Your task to perform on an android device: Open Google Chrome and open the bookmarks view Image 0: 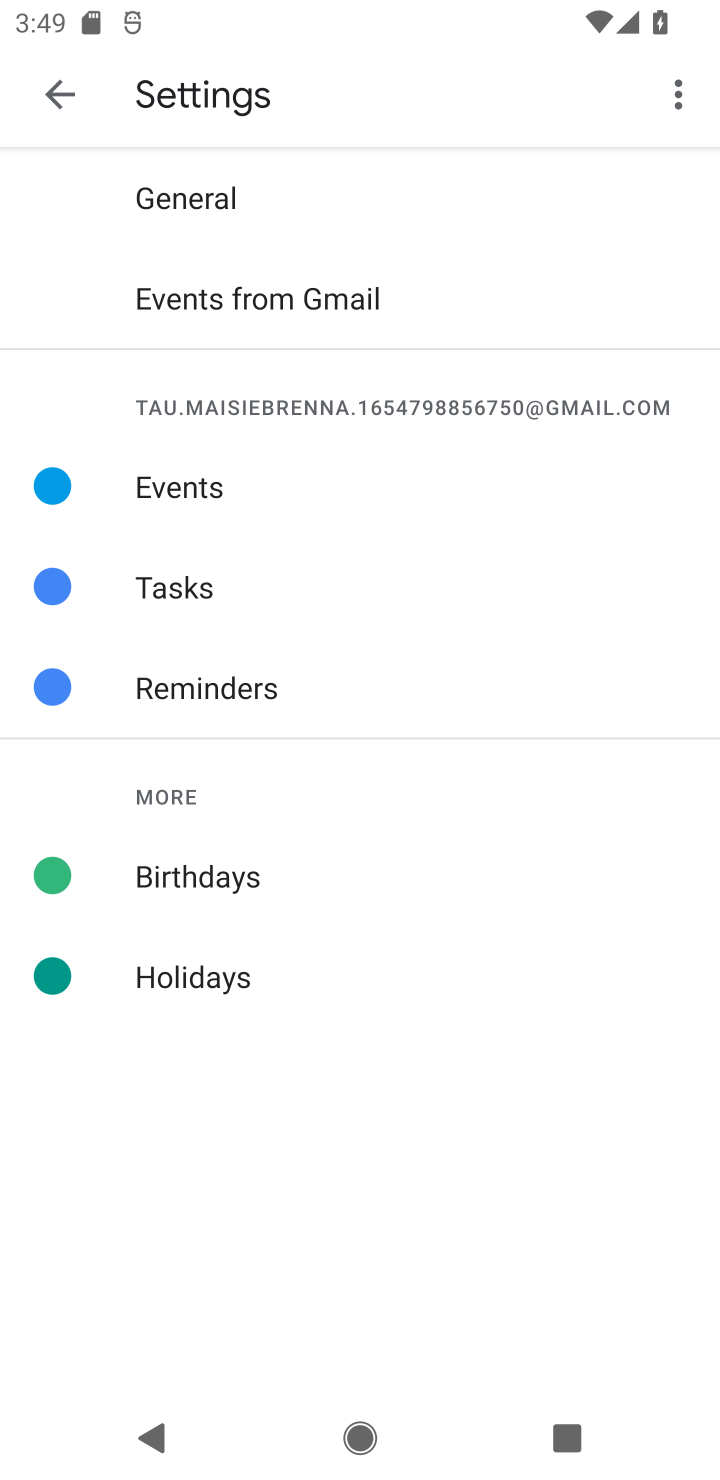
Step 0: press back button
Your task to perform on an android device: Open Google Chrome and open the bookmarks view Image 1: 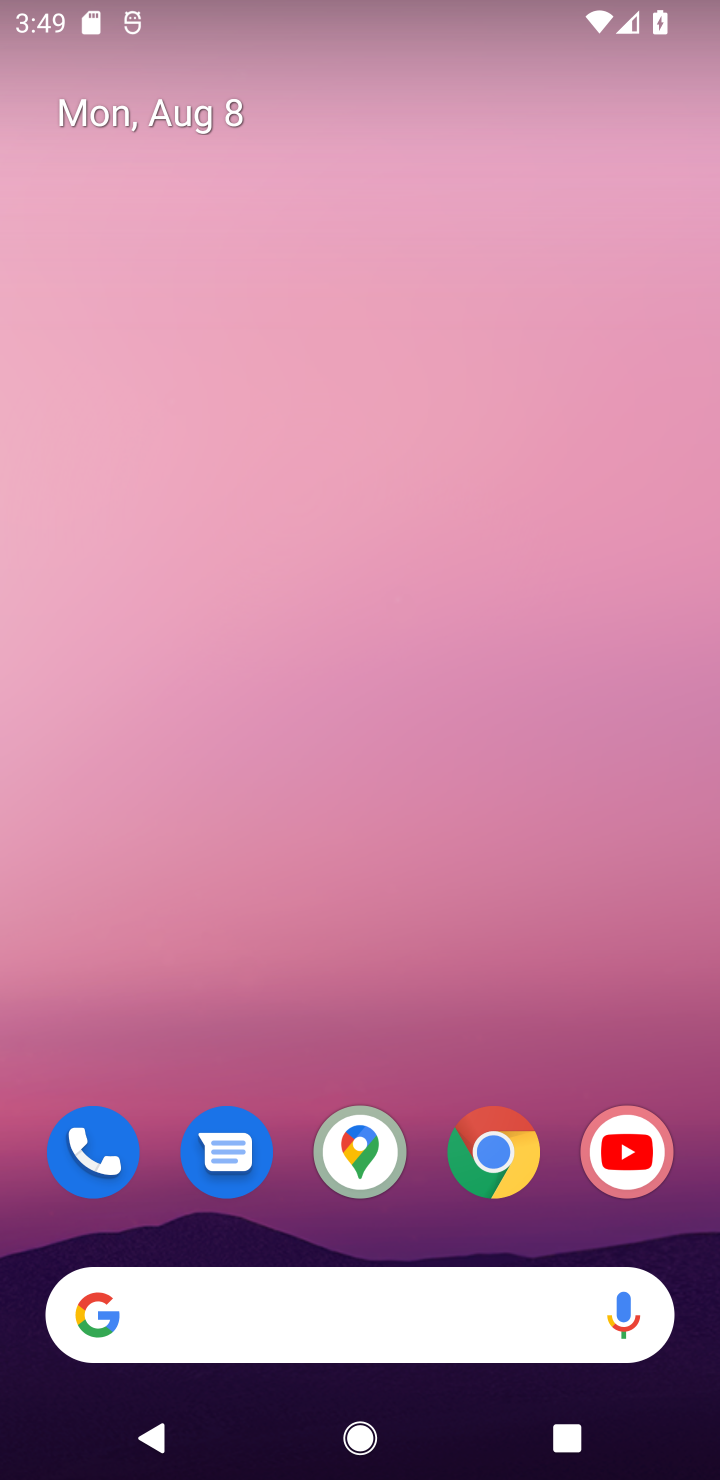
Step 1: click (499, 1186)
Your task to perform on an android device: Open Google Chrome and open the bookmarks view Image 2: 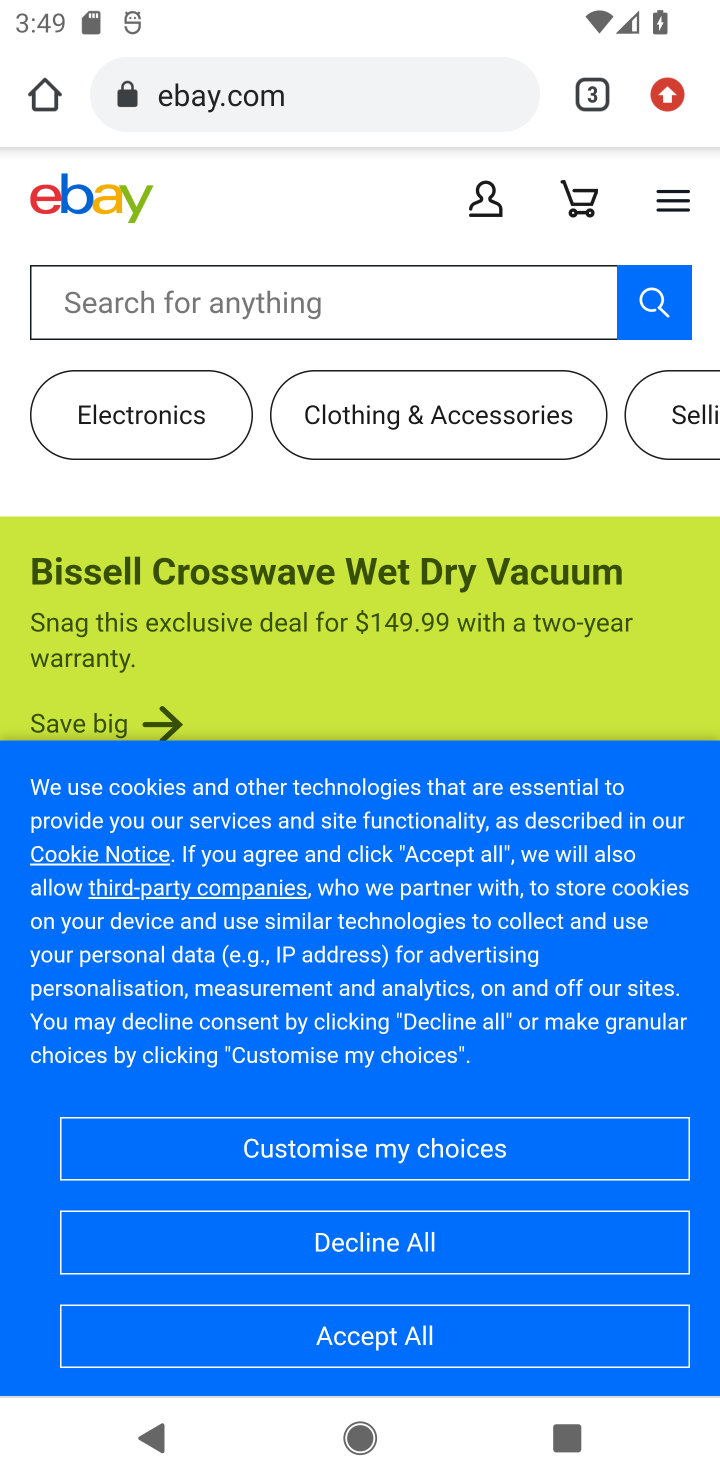
Step 2: task complete